Your task to perform on an android device: turn off translation in the chrome app Image 0: 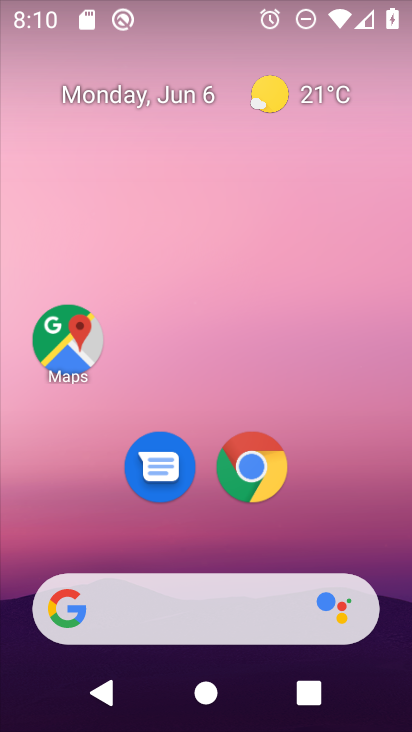
Step 0: drag from (345, 496) to (350, 134)
Your task to perform on an android device: turn off translation in the chrome app Image 1: 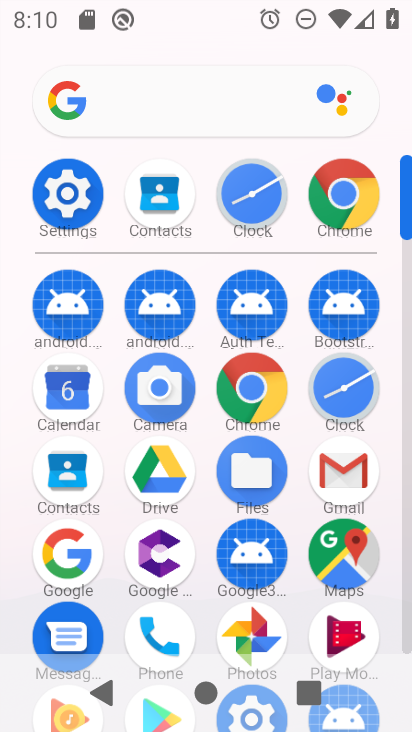
Step 1: click (272, 386)
Your task to perform on an android device: turn off translation in the chrome app Image 2: 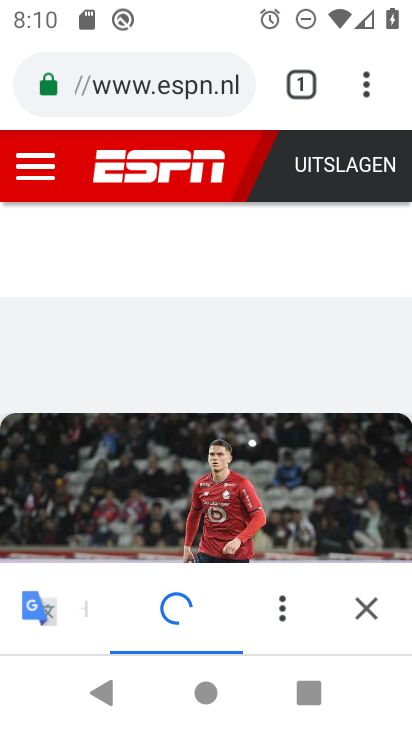
Step 2: click (365, 96)
Your task to perform on an android device: turn off translation in the chrome app Image 3: 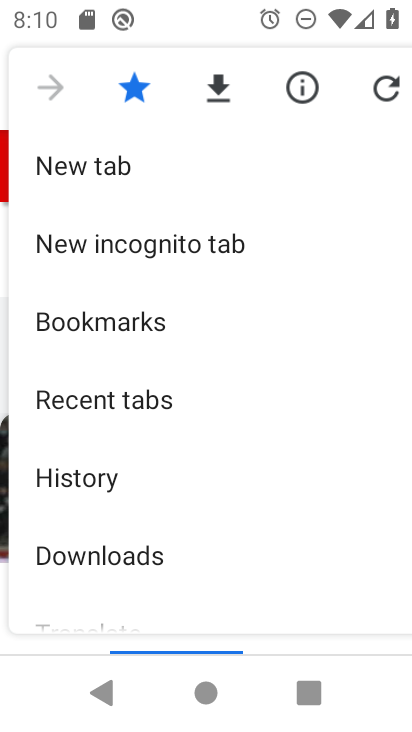
Step 3: drag from (323, 538) to (315, 413)
Your task to perform on an android device: turn off translation in the chrome app Image 4: 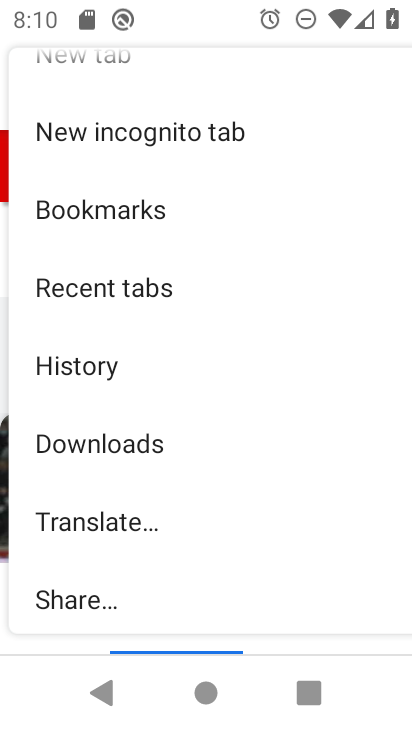
Step 4: drag from (314, 492) to (310, 368)
Your task to perform on an android device: turn off translation in the chrome app Image 5: 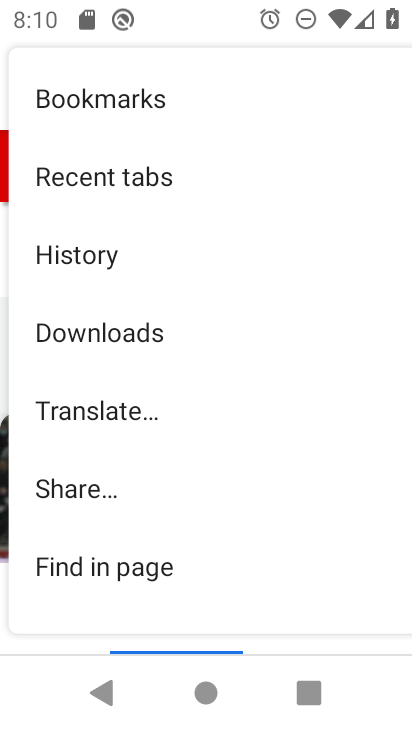
Step 5: drag from (301, 463) to (299, 383)
Your task to perform on an android device: turn off translation in the chrome app Image 6: 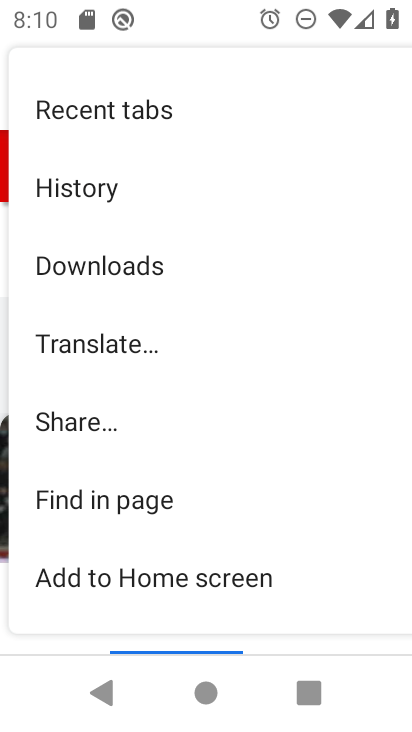
Step 6: drag from (323, 522) to (336, 390)
Your task to perform on an android device: turn off translation in the chrome app Image 7: 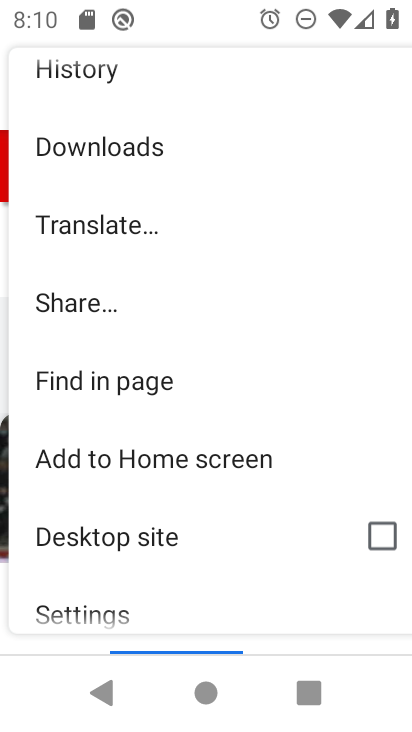
Step 7: drag from (260, 553) to (261, 377)
Your task to perform on an android device: turn off translation in the chrome app Image 8: 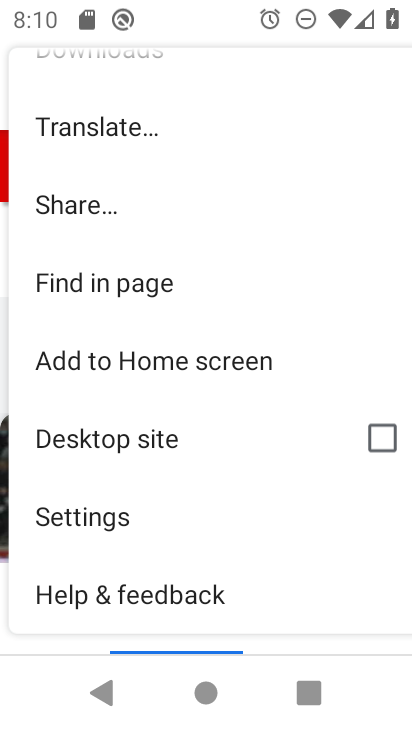
Step 8: click (167, 530)
Your task to perform on an android device: turn off translation in the chrome app Image 9: 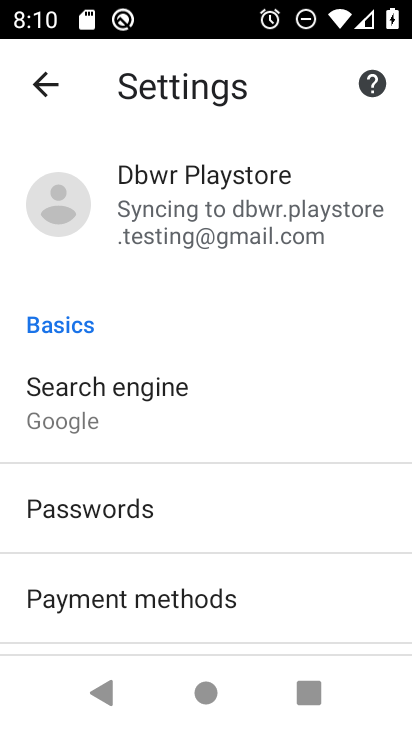
Step 9: drag from (191, 536) to (206, 472)
Your task to perform on an android device: turn off translation in the chrome app Image 10: 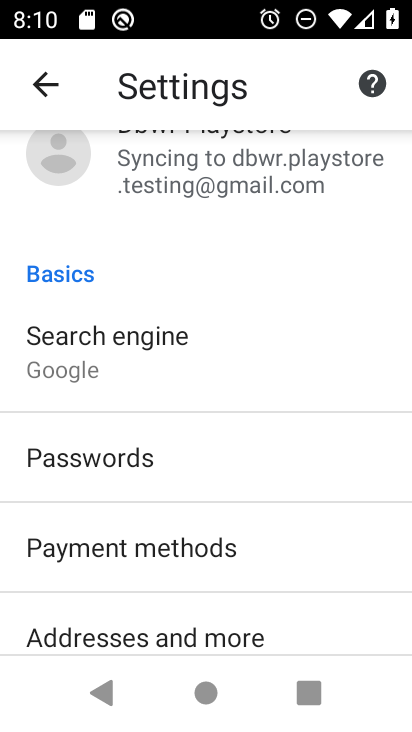
Step 10: drag from (294, 561) to (316, 454)
Your task to perform on an android device: turn off translation in the chrome app Image 11: 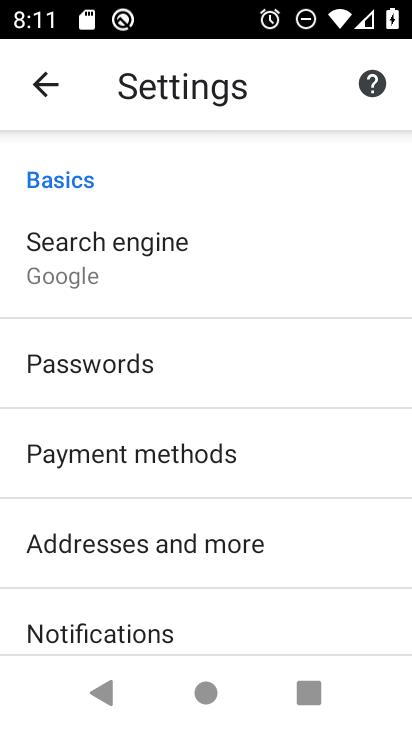
Step 11: drag from (330, 533) to (360, 404)
Your task to perform on an android device: turn off translation in the chrome app Image 12: 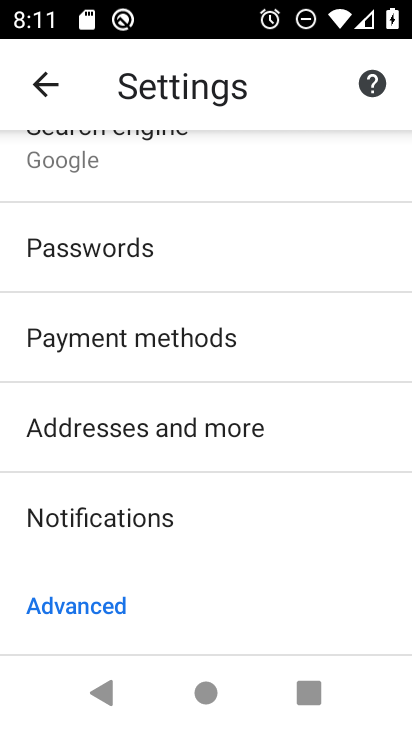
Step 12: drag from (329, 517) to (325, 396)
Your task to perform on an android device: turn off translation in the chrome app Image 13: 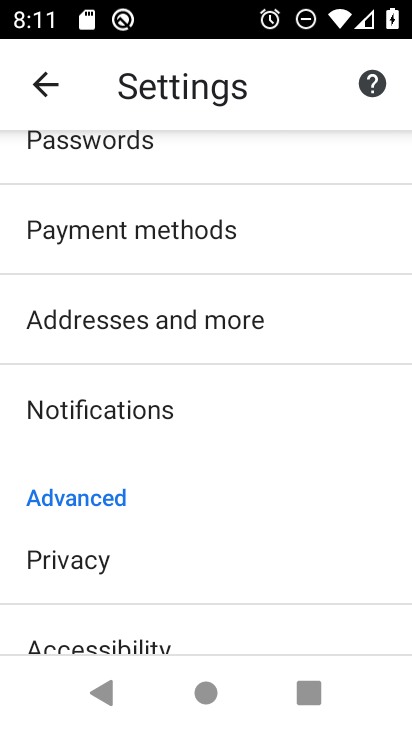
Step 13: drag from (299, 532) to (300, 389)
Your task to perform on an android device: turn off translation in the chrome app Image 14: 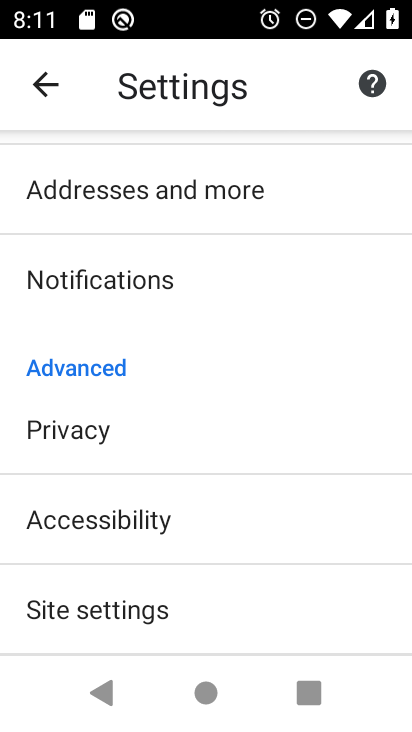
Step 14: drag from (297, 511) to (293, 384)
Your task to perform on an android device: turn off translation in the chrome app Image 15: 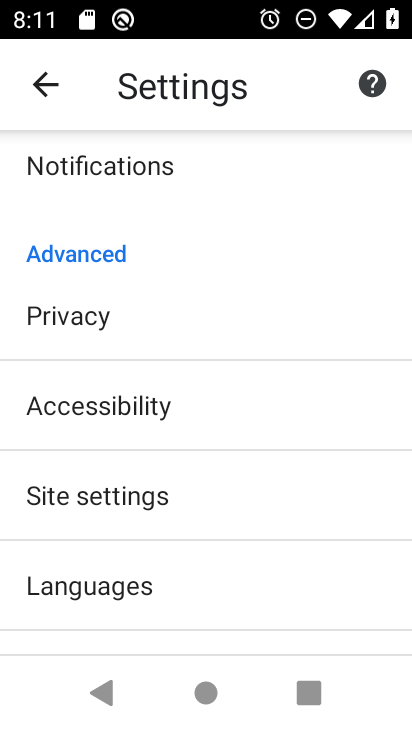
Step 15: click (252, 593)
Your task to perform on an android device: turn off translation in the chrome app Image 16: 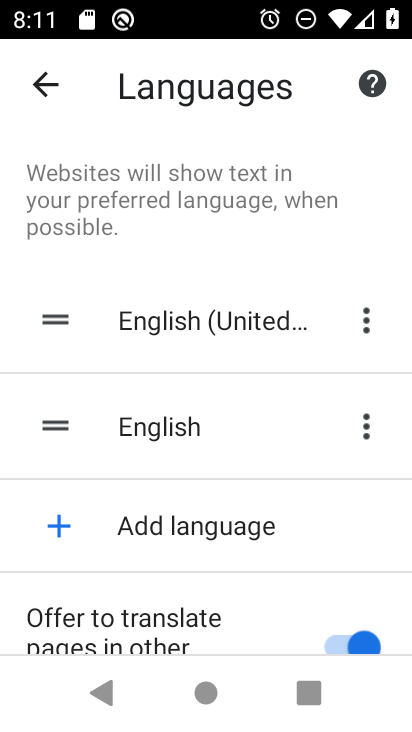
Step 16: drag from (253, 583) to (294, 412)
Your task to perform on an android device: turn off translation in the chrome app Image 17: 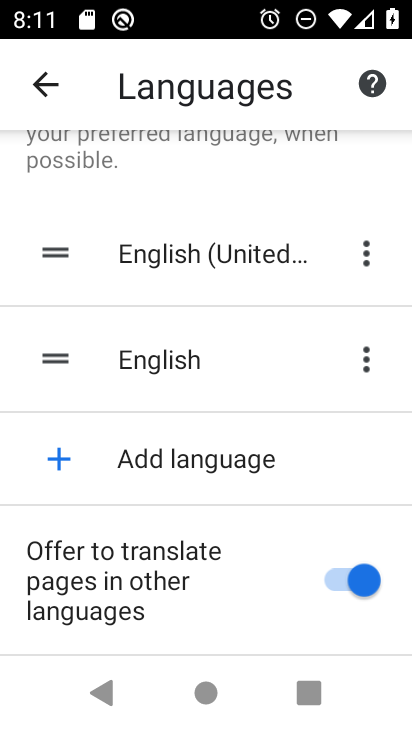
Step 17: click (348, 580)
Your task to perform on an android device: turn off translation in the chrome app Image 18: 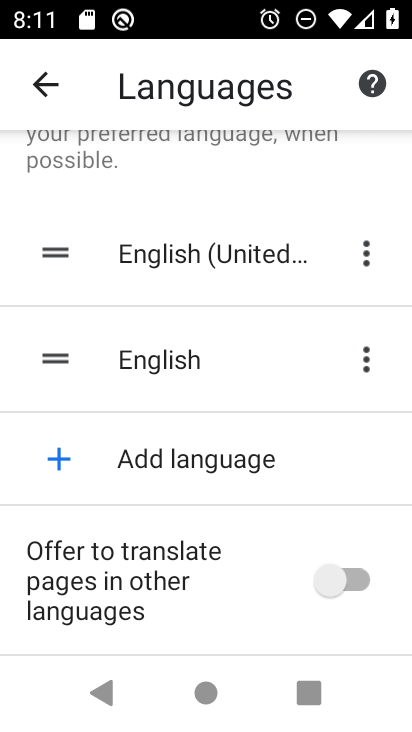
Step 18: task complete